Your task to perform on an android device: turn off sleep mode Image 0: 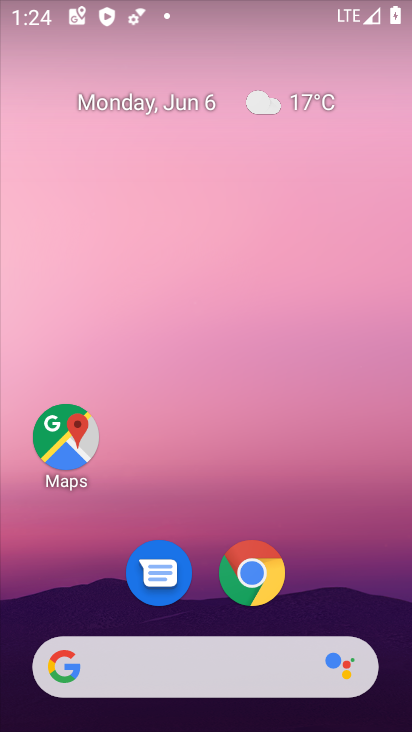
Step 0: drag from (351, 570) to (363, 210)
Your task to perform on an android device: turn off sleep mode Image 1: 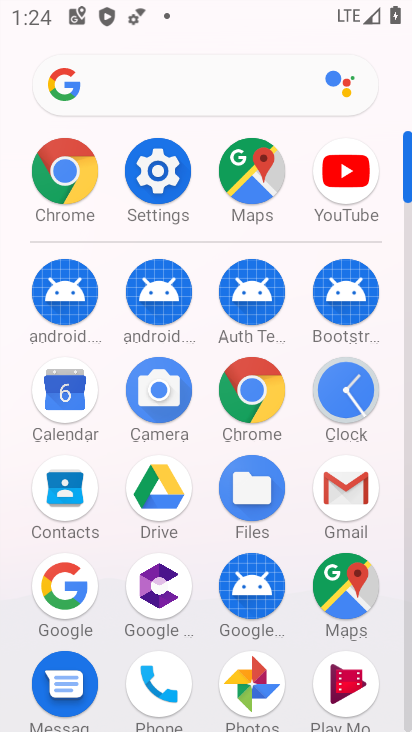
Step 1: click (164, 175)
Your task to perform on an android device: turn off sleep mode Image 2: 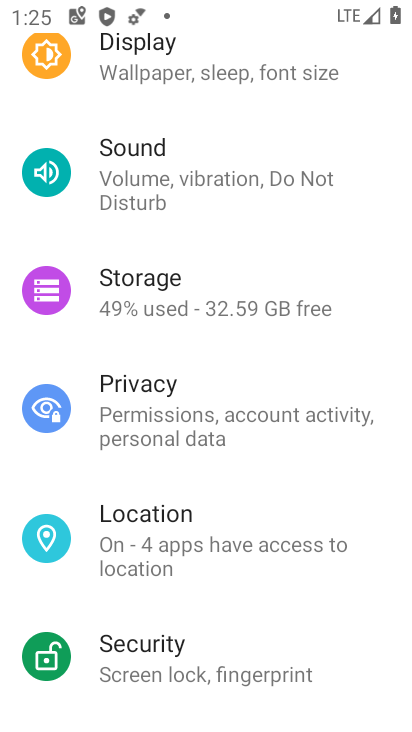
Step 2: drag from (362, 280) to (362, 373)
Your task to perform on an android device: turn off sleep mode Image 3: 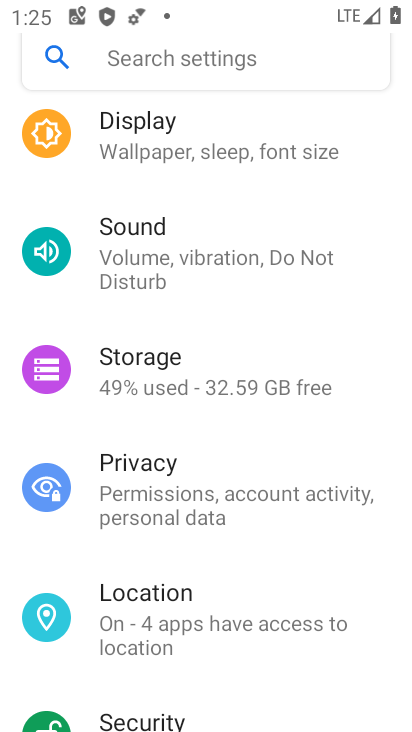
Step 3: drag from (365, 205) to (352, 364)
Your task to perform on an android device: turn off sleep mode Image 4: 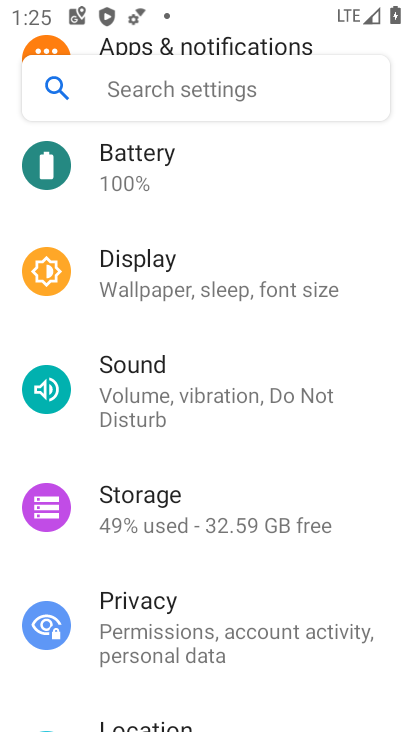
Step 4: drag from (349, 197) to (346, 383)
Your task to perform on an android device: turn off sleep mode Image 5: 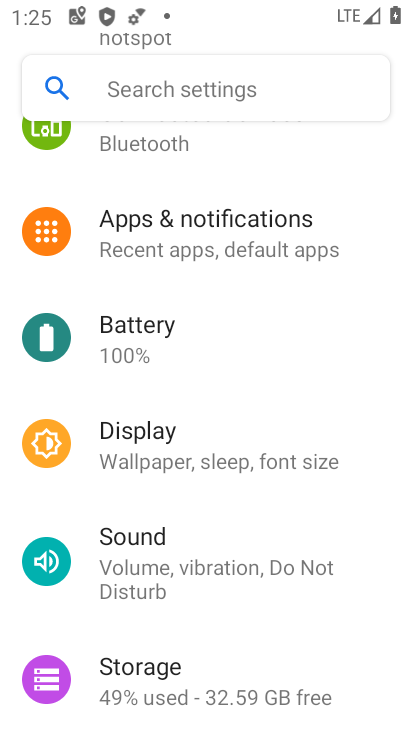
Step 5: click (204, 448)
Your task to perform on an android device: turn off sleep mode Image 6: 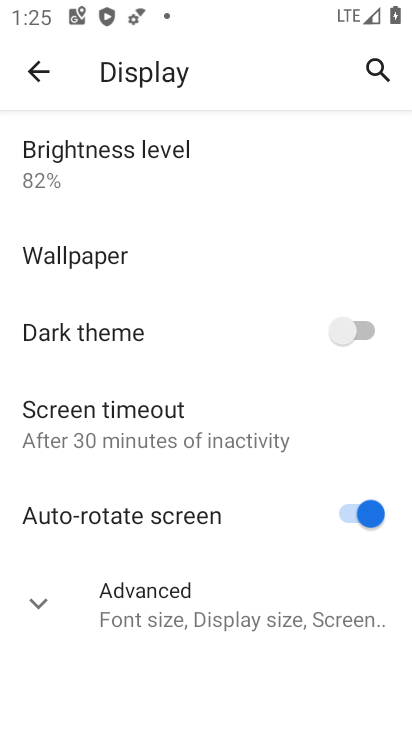
Step 6: click (194, 616)
Your task to perform on an android device: turn off sleep mode Image 7: 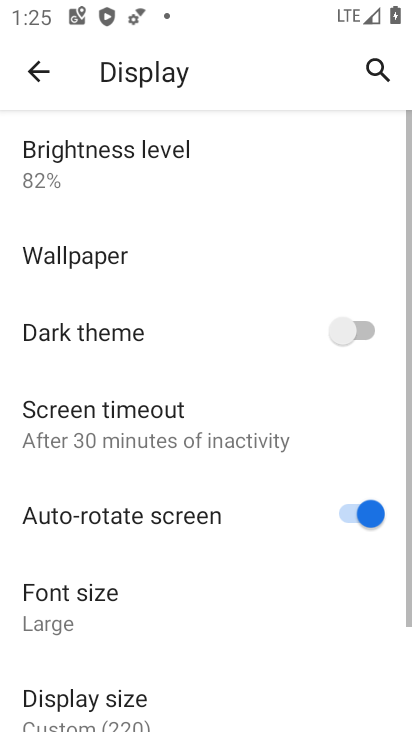
Step 7: task complete